Your task to perform on an android device: Show me popular games on the Play Store Image 0: 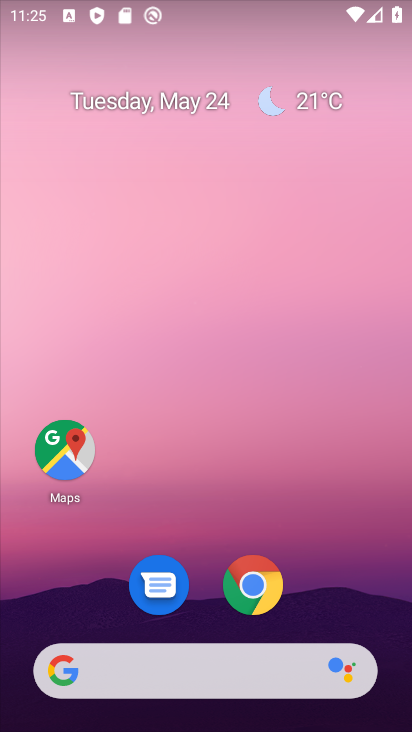
Step 0: drag from (268, 496) to (311, 56)
Your task to perform on an android device: Show me popular games on the Play Store Image 1: 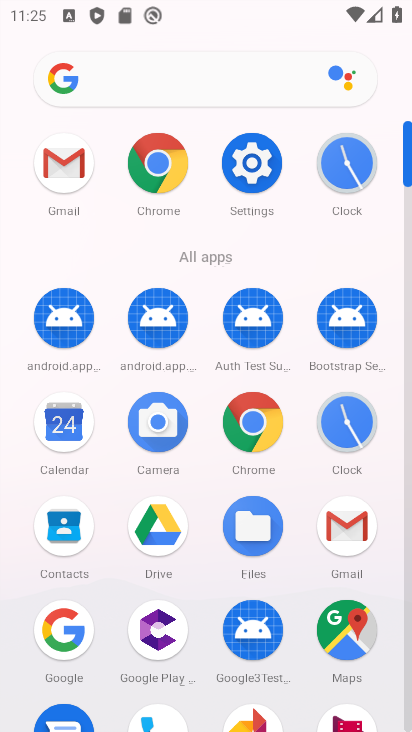
Step 1: drag from (209, 406) to (235, 142)
Your task to perform on an android device: Show me popular games on the Play Store Image 2: 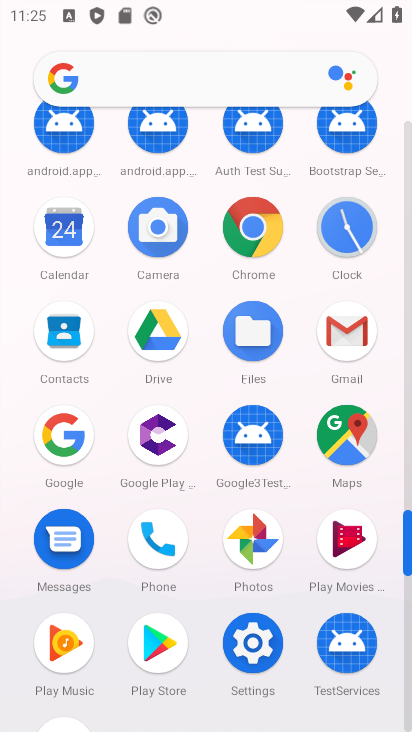
Step 2: click (163, 634)
Your task to perform on an android device: Show me popular games on the Play Store Image 3: 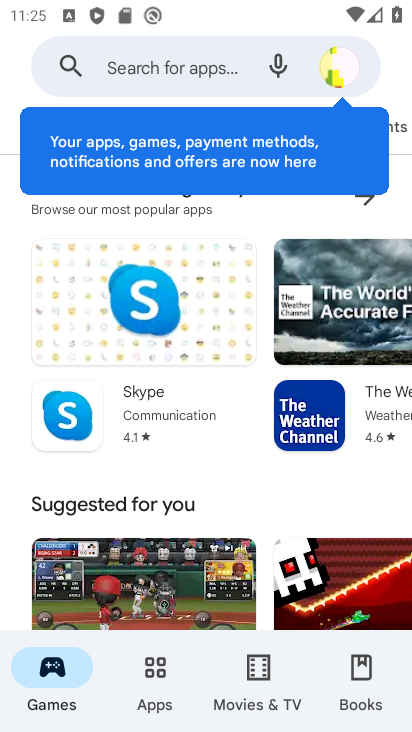
Step 3: drag from (264, 453) to (295, 139)
Your task to perform on an android device: Show me popular games on the Play Store Image 4: 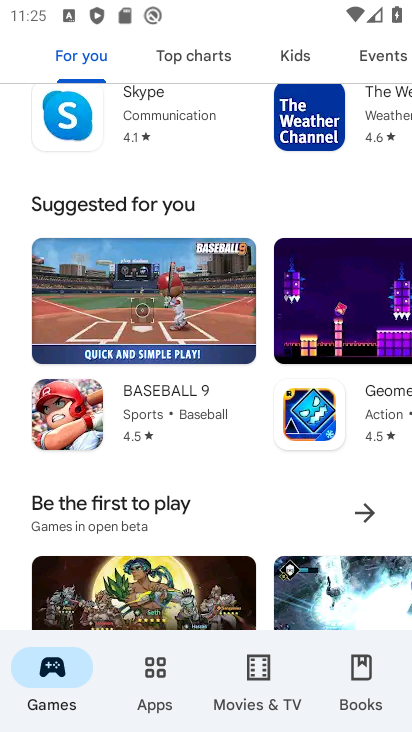
Step 4: drag from (250, 453) to (280, 66)
Your task to perform on an android device: Show me popular games on the Play Store Image 5: 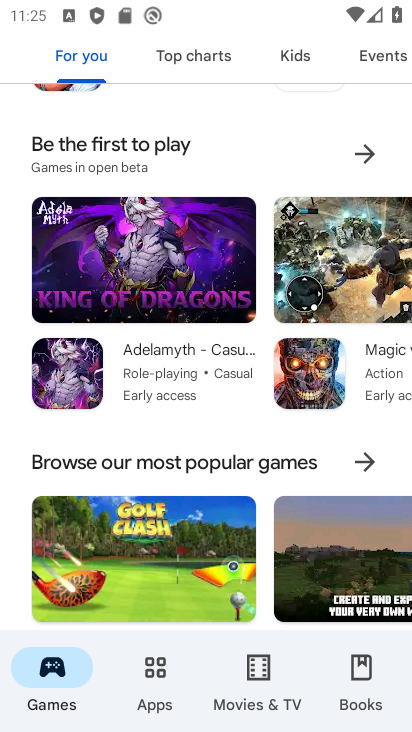
Step 5: click (362, 459)
Your task to perform on an android device: Show me popular games on the Play Store Image 6: 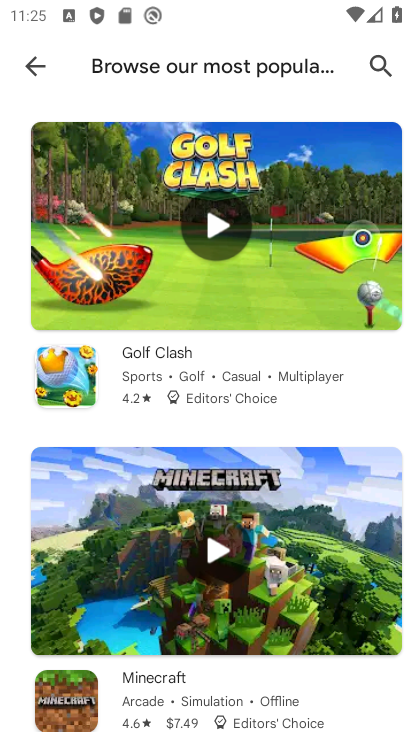
Step 6: task complete